Your task to perform on an android device: change alarm snooze length Image 0: 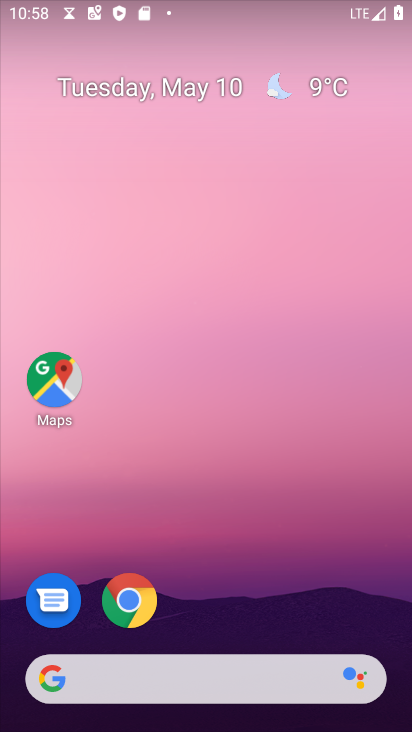
Step 0: drag from (273, 605) to (215, 92)
Your task to perform on an android device: change alarm snooze length Image 1: 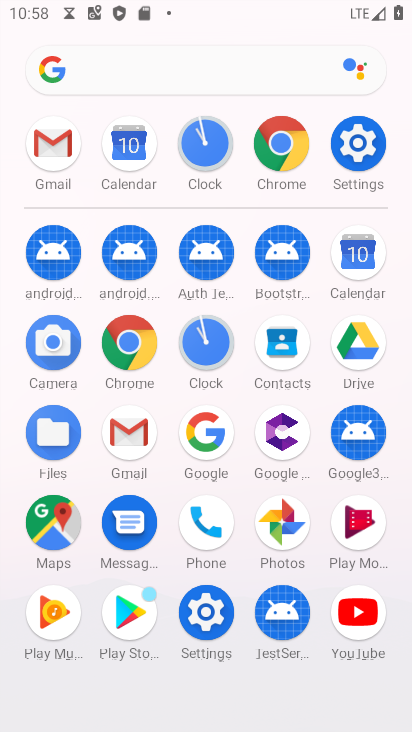
Step 1: click (209, 143)
Your task to perform on an android device: change alarm snooze length Image 2: 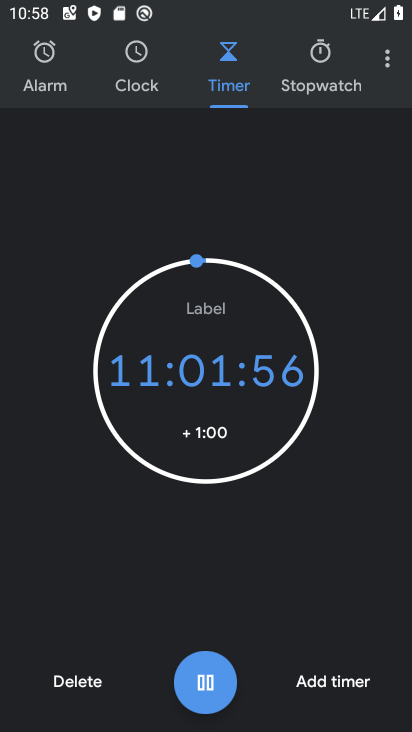
Step 2: click (374, 61)
Your task to perform on an android device: change alarm snooze length Image 3: 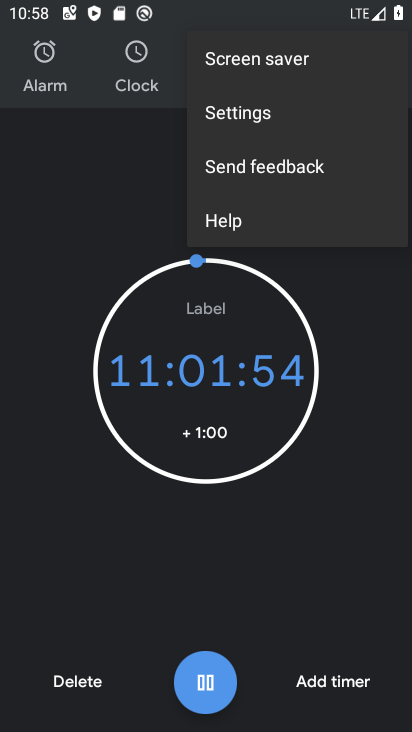
Step 3: click (252, 127)
Your task to perform on an android device: change alarm snooze length Image 4: 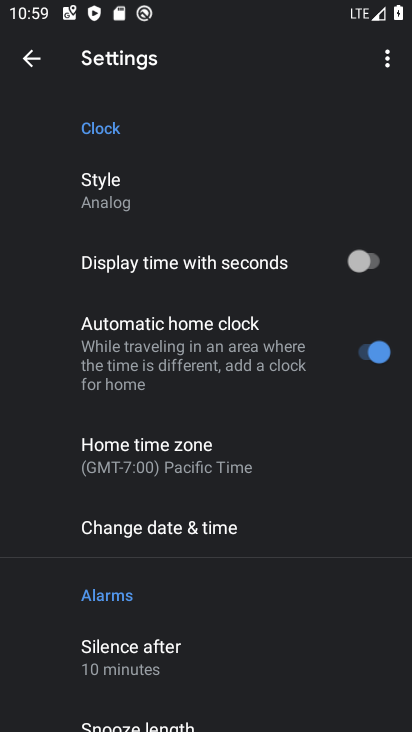
Step 4: click (189, 723)
Your task to perform on an android device: change alarm snooze length Image 5: 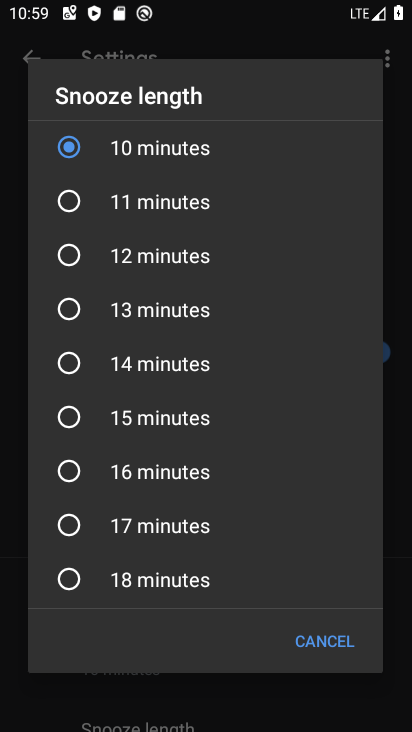
Step 5: click (174, 256)
Your task to perform on an android device: change alarm snooze length Image 6: 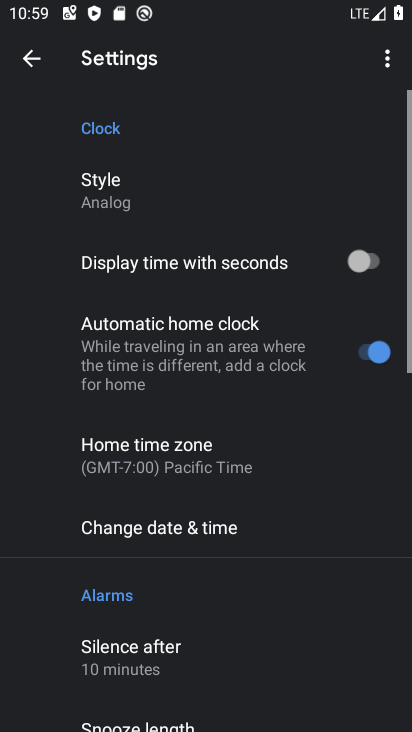
Step 6: task complete